Your task to perform on an android device: turn on translation in the chrome app Image 0: 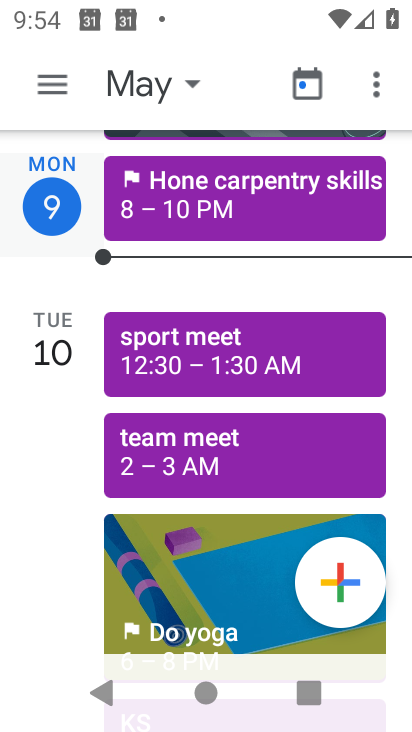
Step 0: press back button
Your task to perform on an android device: turn on translation in the chrome app Image 1: 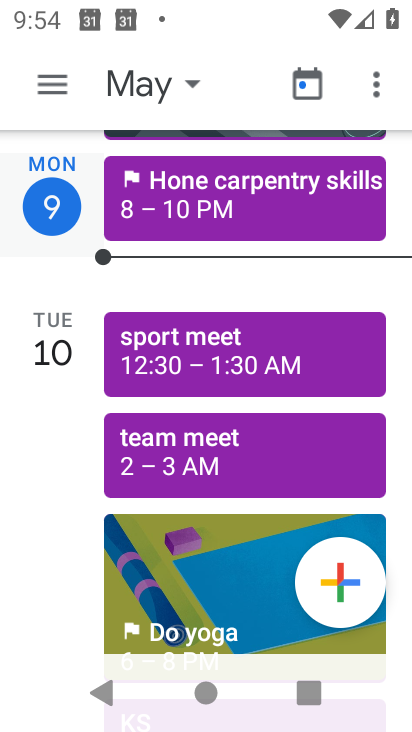
Step 1: press back button
Your task to perform on an android device: turn on translation in the chrome app Image 2: 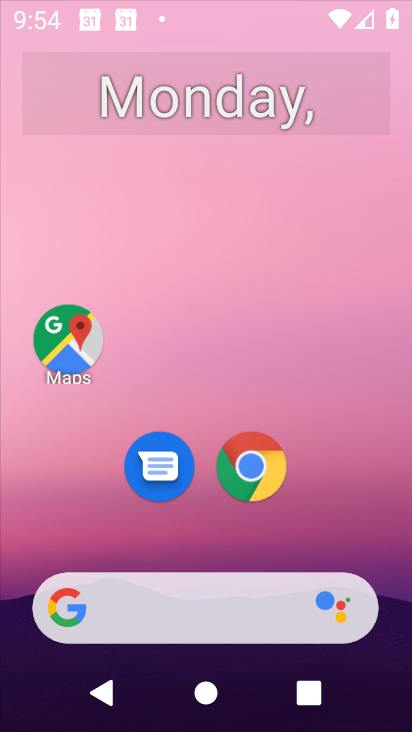
Step 2: press back button
Your task to perform on an android device: turn on translation in the chrome app Image 3: 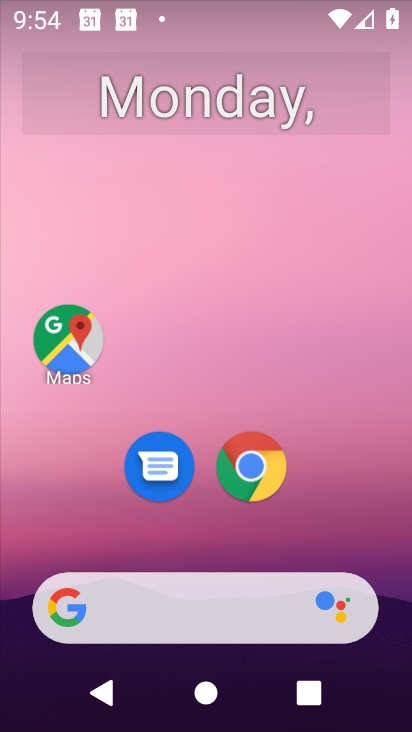
Step 3: drag from (316, 536) to (187, 2)
Your task to perform on an android device: turn on translation in the chrome app Image 4: 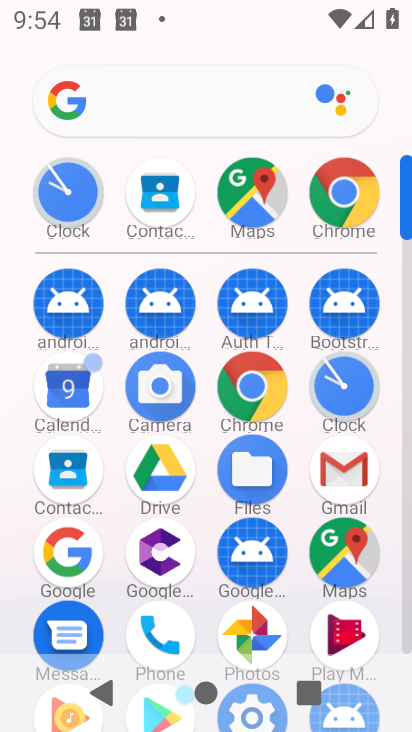
Step 4: click (317, 198)
Your task to perform on an android device: turn on translation in the chrome app Image 5: 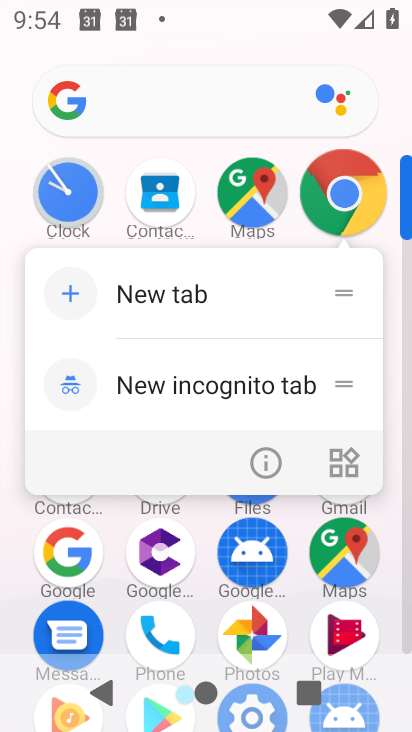
Step 5: click (346, 197)
Your task to perform on an android device: turn on translation in the chrome app Image 6: 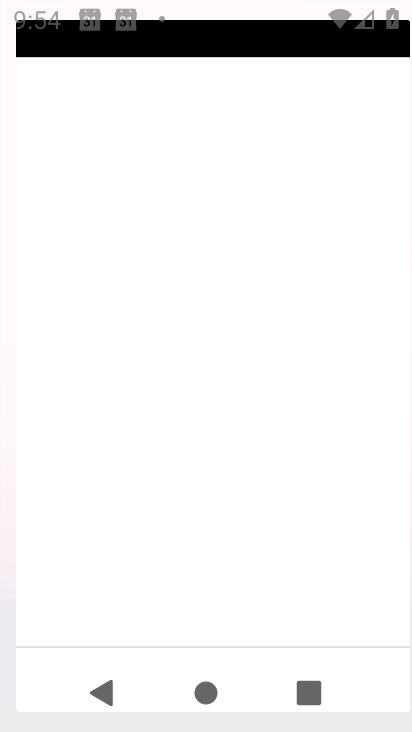
Step 6: click (347, 197)
Your task to perform on an android device: turn on translation in the chrome app Image 7: 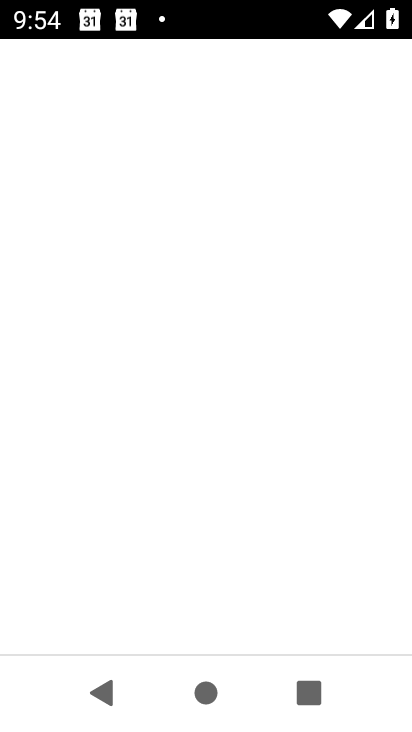
Step 7: click (347, 197)
Your task to perform on an android device: turn on translation in the chrome app Image 8: 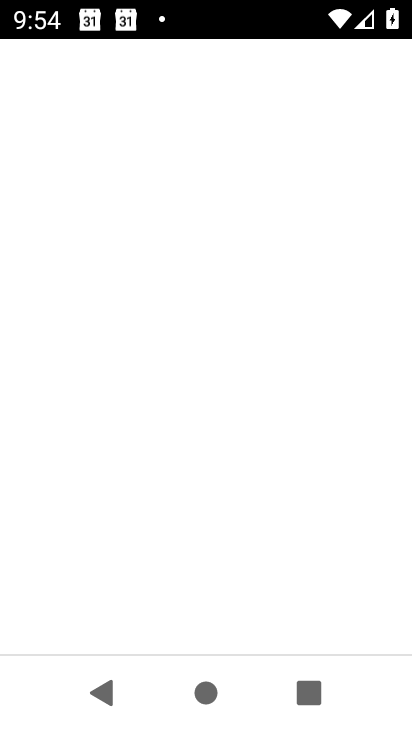
Step 8: click (347, 196)
Your task to perform on an android device: turn on translation in the chrome app Image 9: 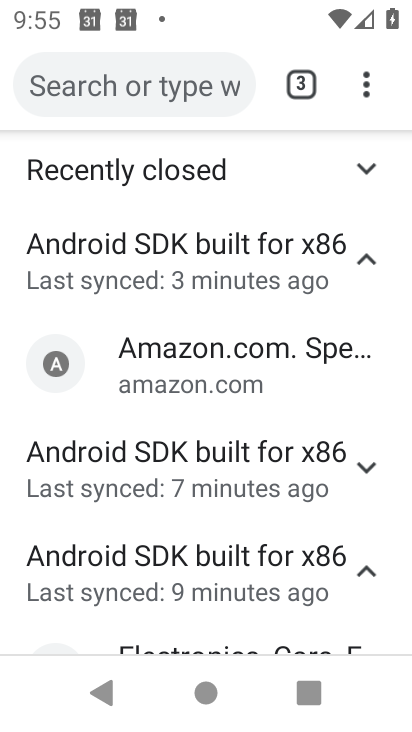
Step 9: drag from (367, 91) to (87, 513)
Your task to perform on an android device: turn on translation in the chrome app Image 10: 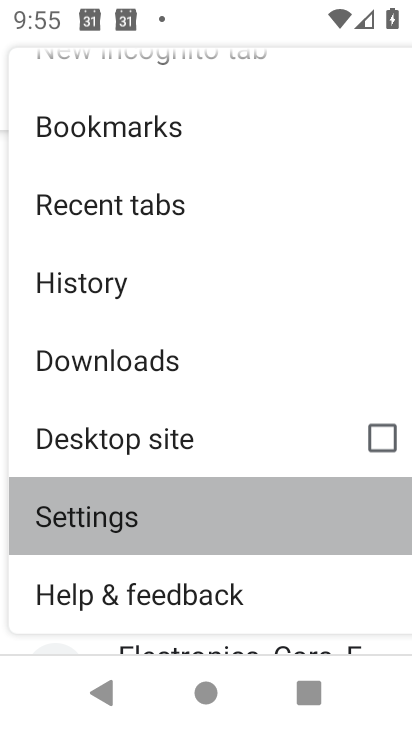
Step 10: click (86, 514)
Your task to perform on an android device: turn on translation in the chrome app Image 11: 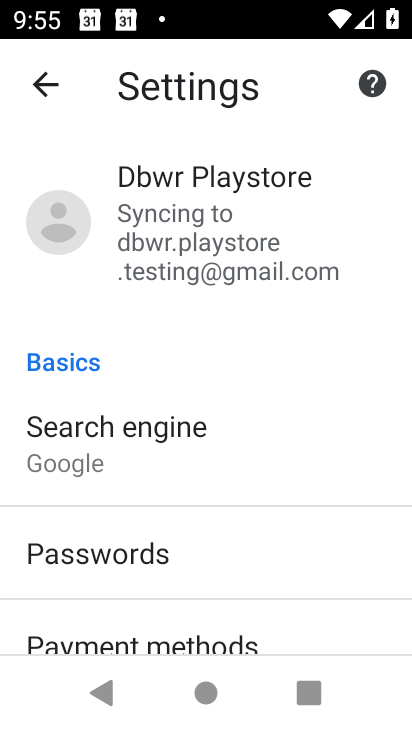
Step 11: drag from (255, 567) to (337, 130)
Your task to perform on an android device: turn on translation in the chrome app Image 12: 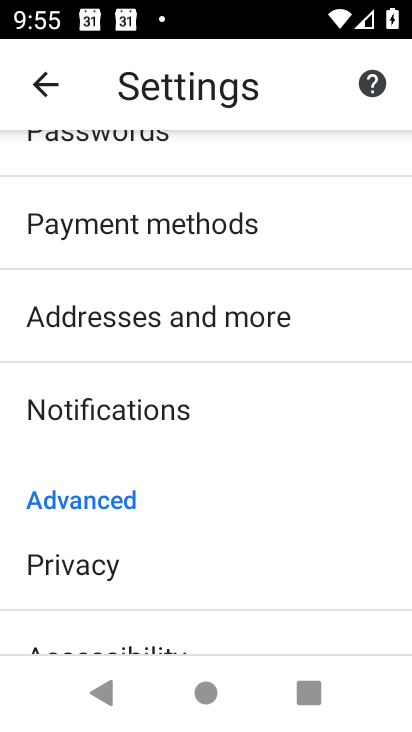
Step 12: drag from (291, 512) to (230, 192)
Your task to perform on an android device: turn on translation in the chrome app Image 13: 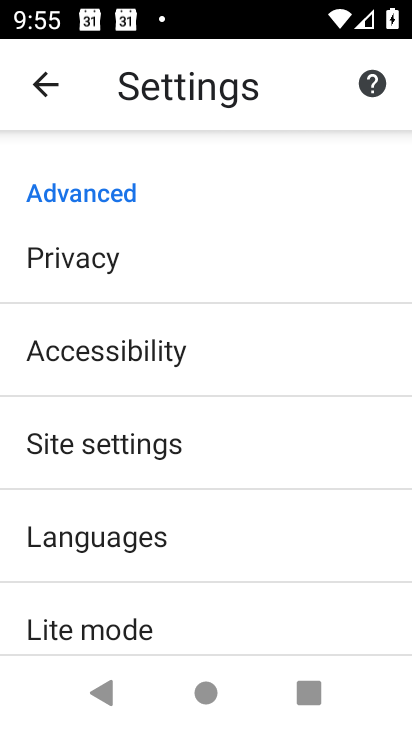
Step 13: click (99, 535)
Your task to perform on an android device: turn on translation in the chrome app Image 14: 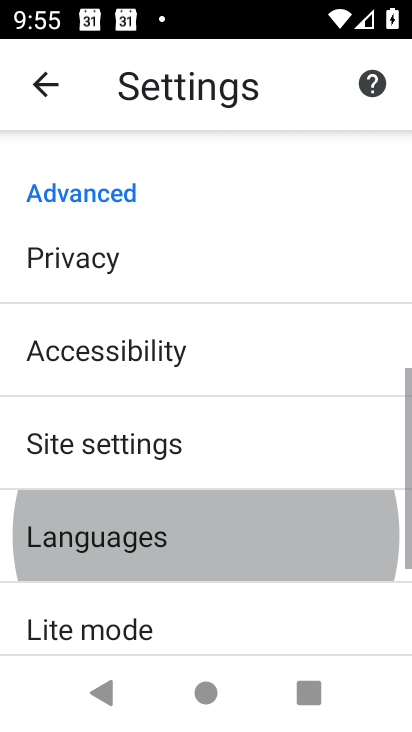
Step 14: click (97, 533)
Your task to perform on an android device: turn on translation in the chrome app Image 15: 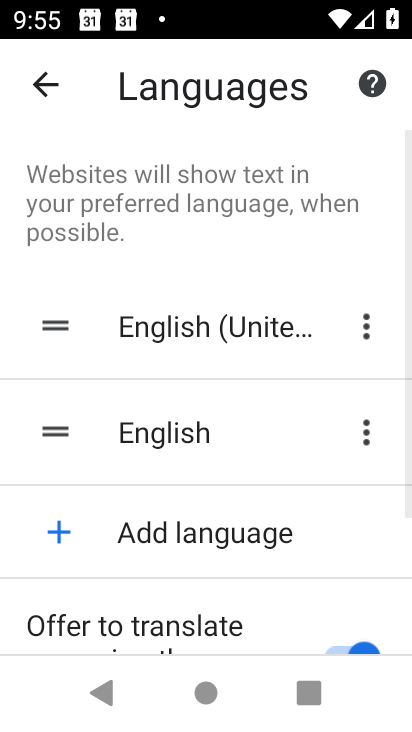
Step 15: task complete